Your task to perform on an android device: turn on wifi Image 0: 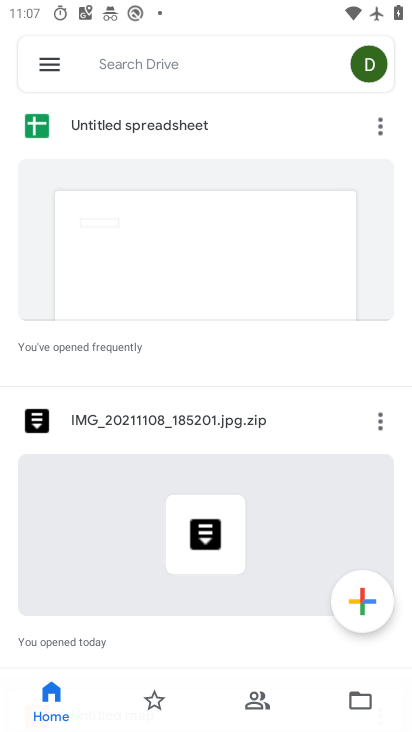
Step 0: press back button
Your task to perform on an android device: turn on wifi Image 1: 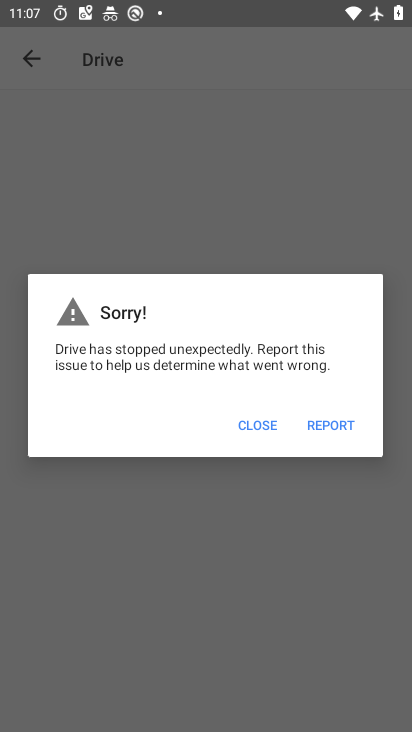
Step 1: click (247, 427)
Your task to perform on an android device: turn on wifi Image 2: 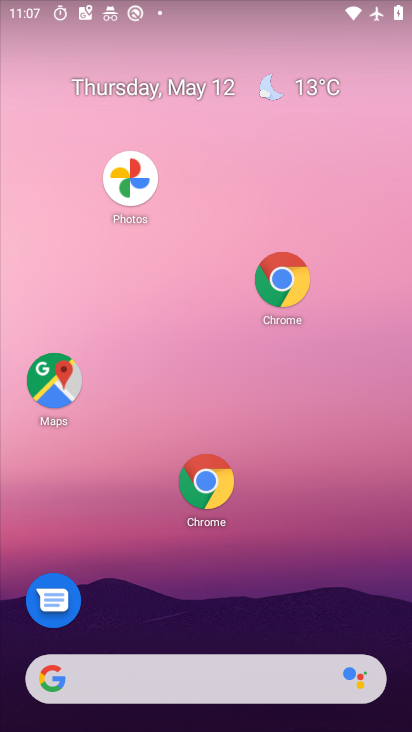
Step 2: drag from (361, 608) to (198, 89)
Your task to perform on an android device: turn on wifi Image 3: 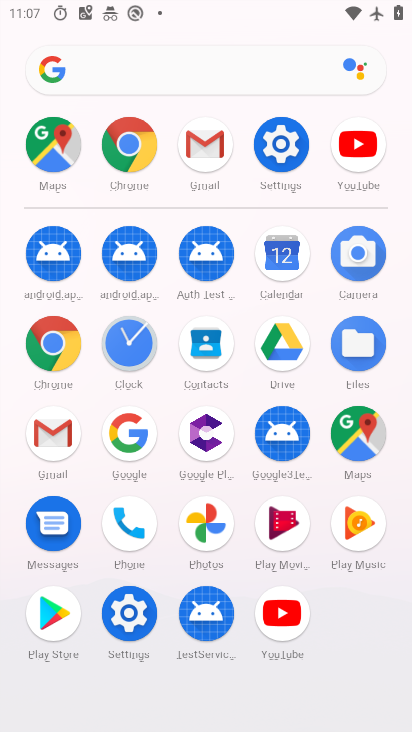
Step 3: click (286, 153)
Your task to perform on an android device: turn on wifi Image 4: 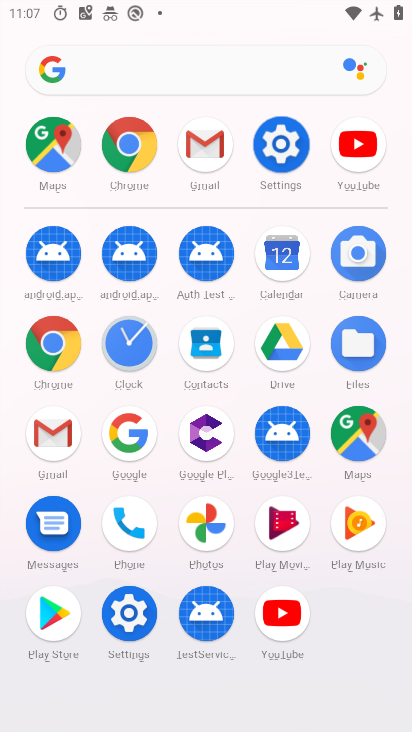
Step 4: click (287, 153)
Your task to perform on an android device: turn on wifi Image 5: 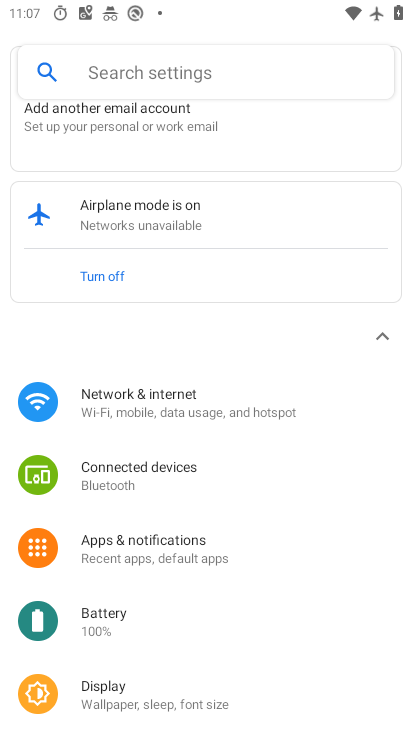
Step 5: drag from (202, 554) to (175, 218)
Your task to perform on an android device: turn on wifi Image 6: 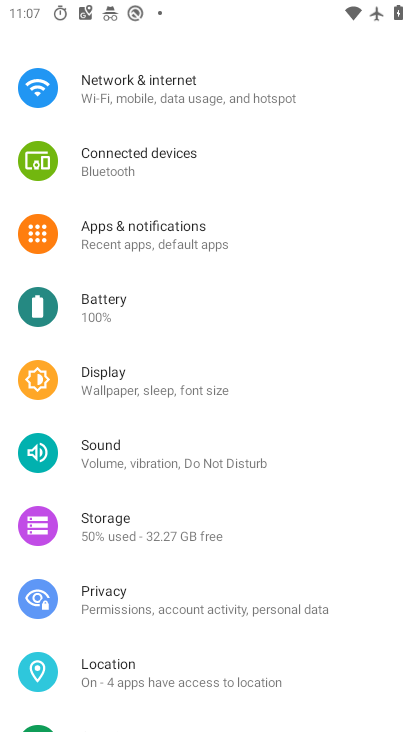
Step 6: drag from (203, 442) to (203, 79)
Your task to perform on an android device: turn on wifi Image 7: 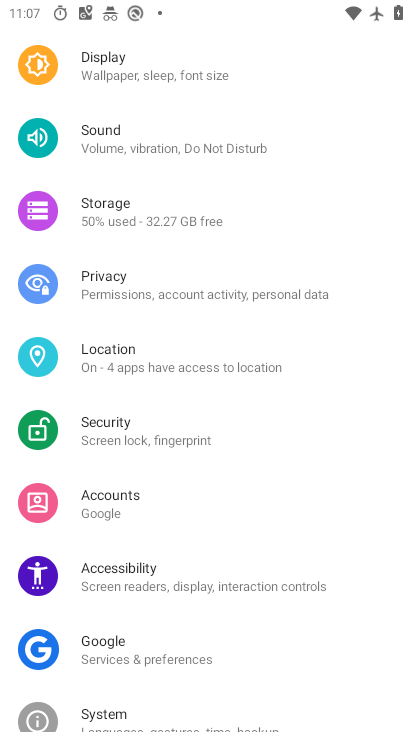
Step 7: drag from (227, 393) to (144, 114)
Your task to perform on an android device: turn on wifi Image 8: 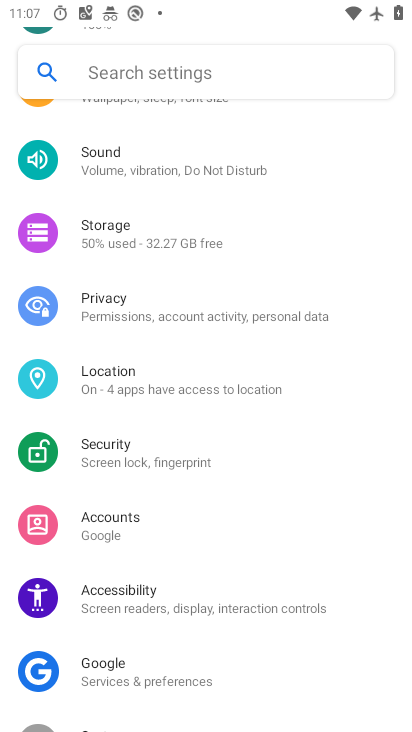
Step 8: drag from (220, 434) to (166, 7)
Your task to perform on an android device: turn on wifi Image 9: 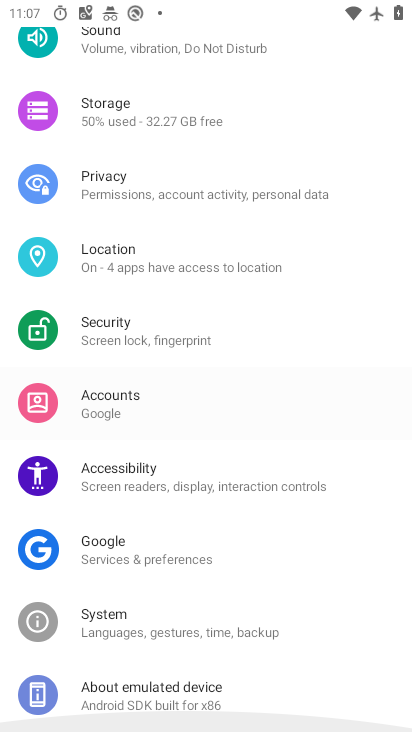
Step 9: drag from (173, 420) to (133, 42)
Your task to perform on an android device: turn on wifi Image 10: 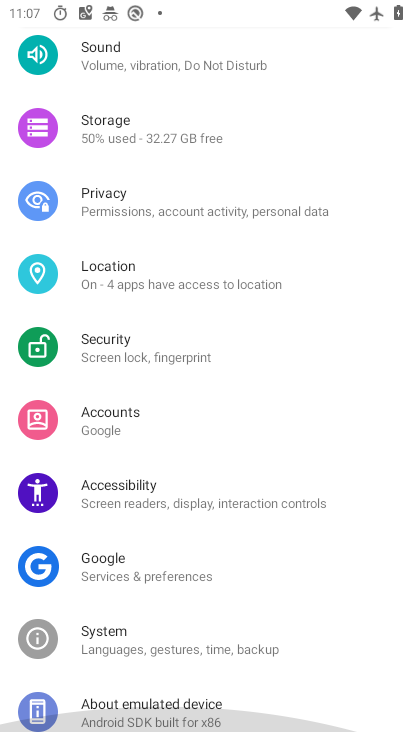
Step 10: drag from (268, 497) to (218, 58)
Your task to perform on an android device: turn on wifi Image 11: 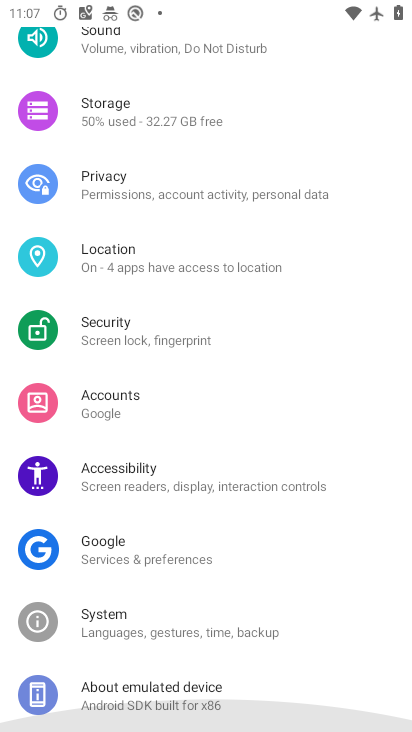
Step 11: drag from (214, 493) to (180, 11)
Your task to perform on an android device: turn on wifi Image 12: 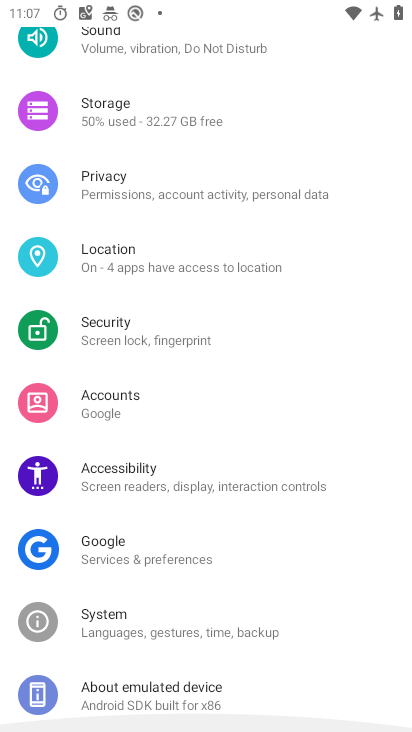
Step 12: drag from (240, 497) to (205, 83)
Your task to perform on an android device: turn on wifi Image 13: 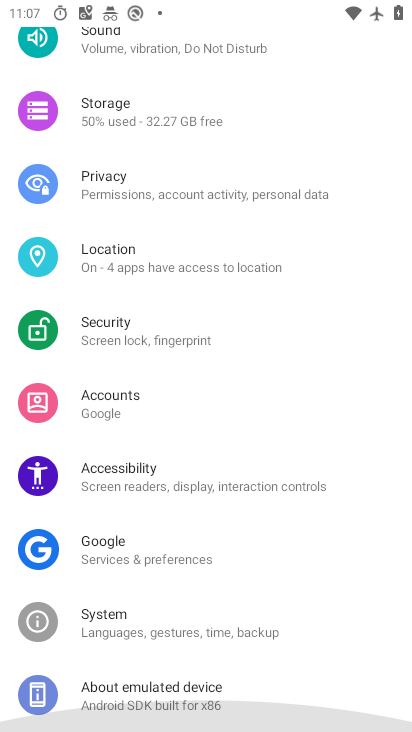
Step 13: drag from (220, 382) to (89, 0)
Your task to perform on an android device: turn on wifi Image 14: 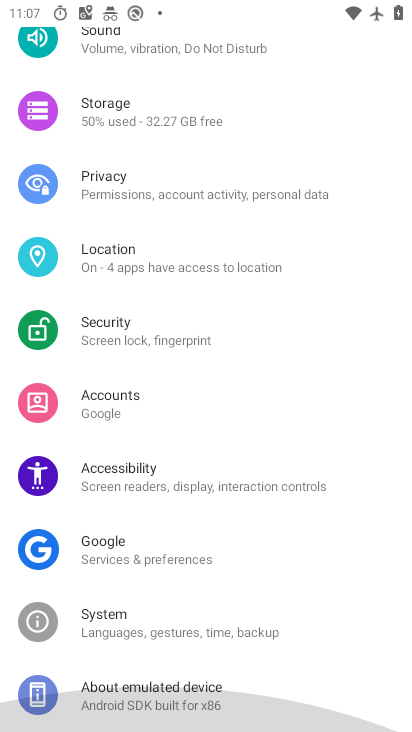
Step 14: drag from (204, 331) to (101, 12)
Your task to perform on an android device: turn on wifi Image 15: 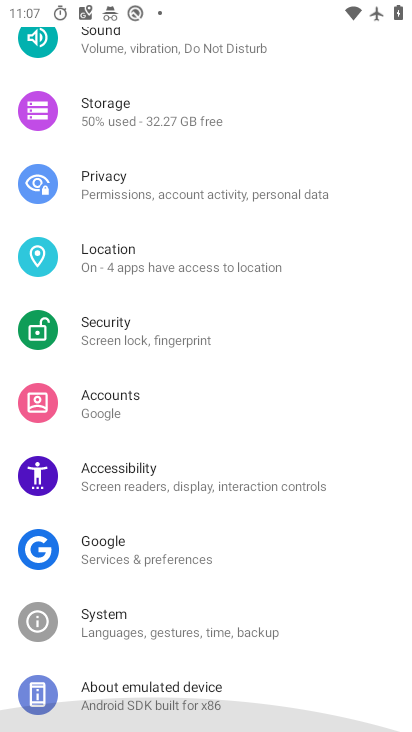
Step 15: drag from (177, 278) to (116, 0)
Your task to perform on an android device: turn on wifi Image 16: 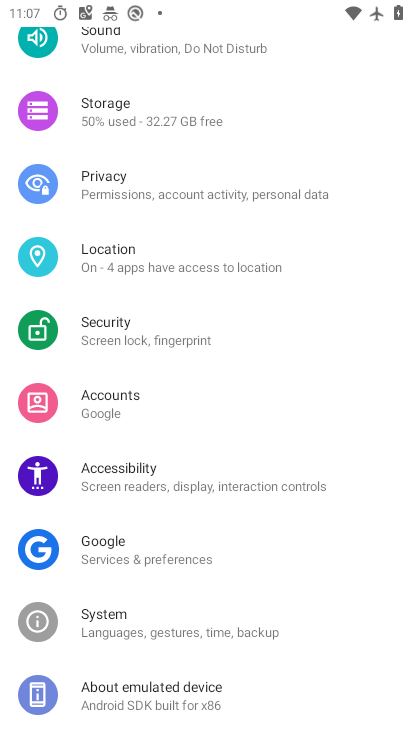
Step 16: drag from (217, 367) to (123, 3)
Your task to perform on an android device: turn on wifi Image 17: 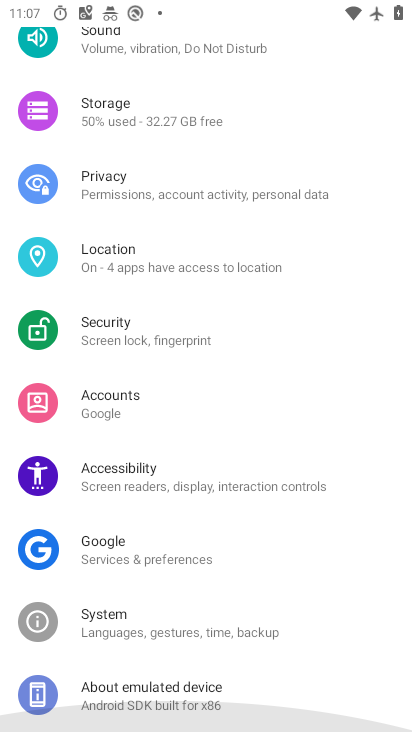
Step 17: drag from (165, 310) to (109, 24)
Your task to perform on an android device: turn on wifi Image 18: 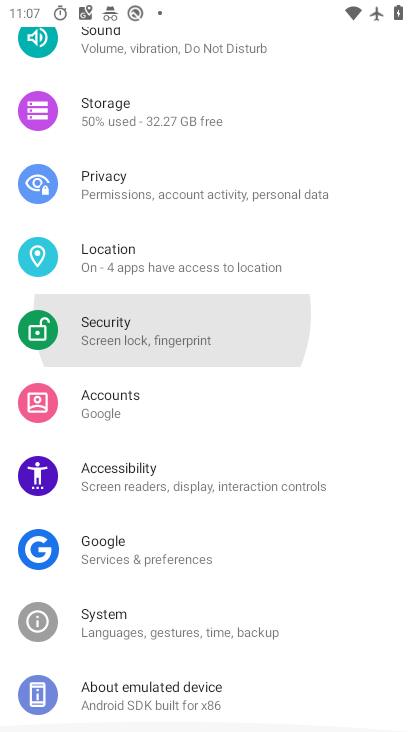
Step 18: drag from (151, 378) to (148, 111)
Your task to perform on an android device: turn on wifi Image 19: 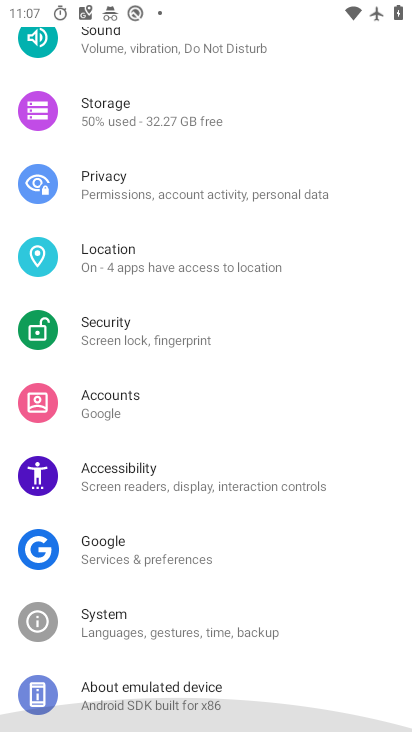
Step 19: drag from (155, 400) to (124, 97)
Your task to perform on an android device: turn on wifi Image 20: 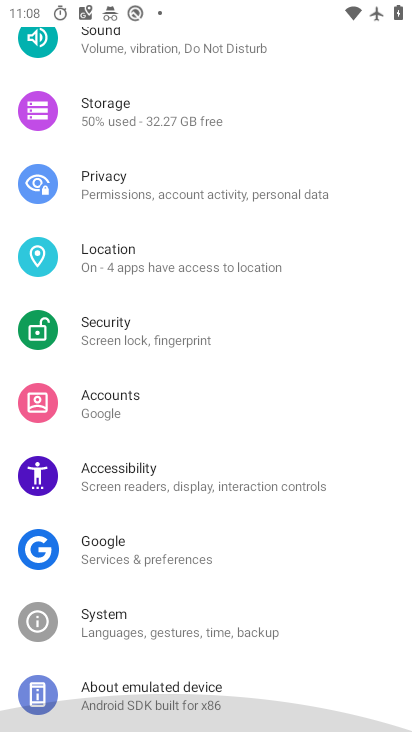
Step 20: drag from (159, 400) to (144, 87)
Your task to perform on an android device: turn on wifi Image 21: 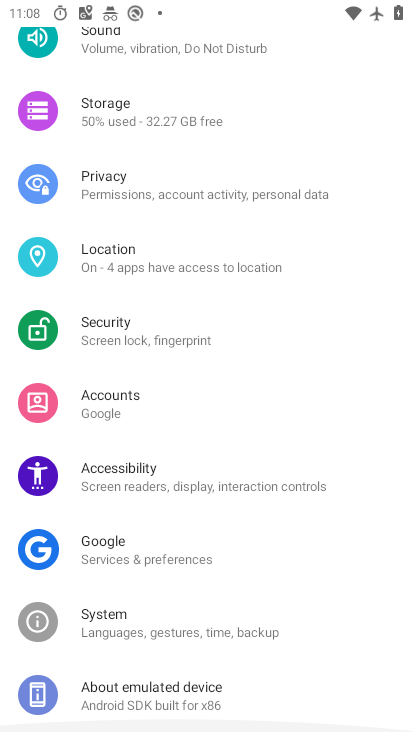
Step 21: drag from (150, 209) to (146, 434)
Your task to perform on an android device: turn on wifi Image 22: 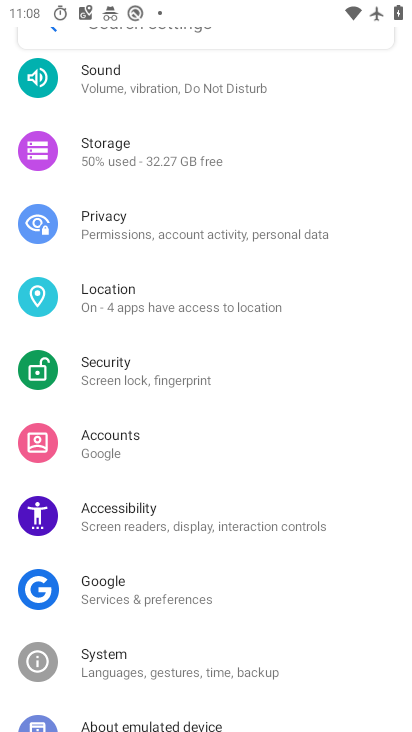
Step 22: drag from (151, 212) to (234, 494)
Your task to perform on an android device: turn on wifi Image 23: 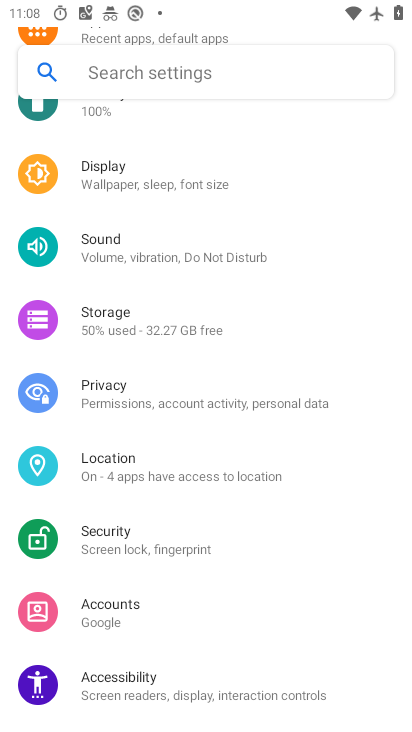
Step 23: drag from (190, 226) to (210, 562)
Your task to perform on an android device: turn on wifi Image 24: 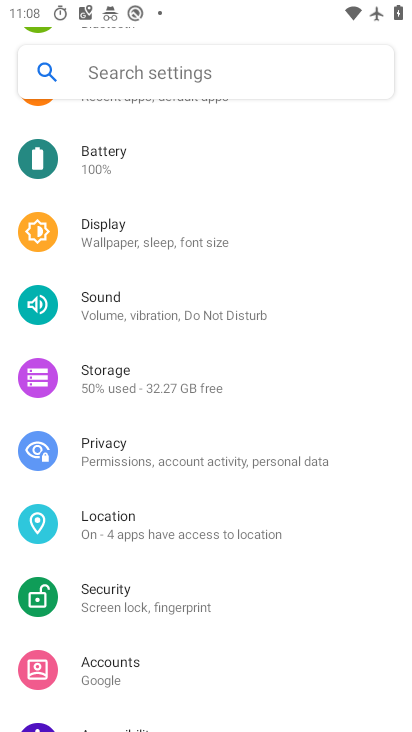
Step 24: drag from (118, 220) to (172, 550)
Your task to perform on an android device: turn on wifi Image 25: 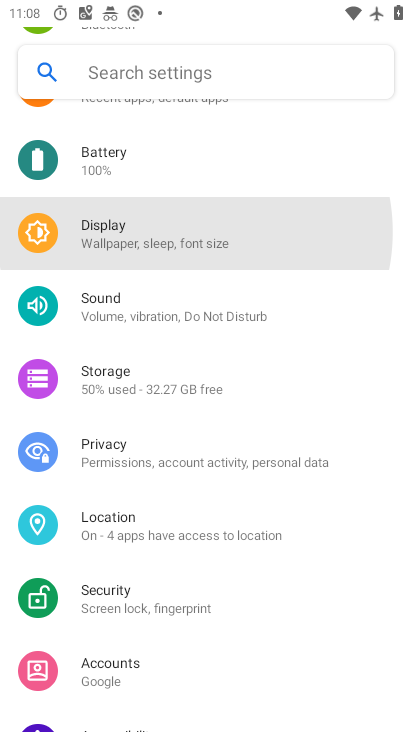
Step 25: drag from (124, 338) to (171, 552)
Your task to perform on an android device: turn on wifi Image 26: 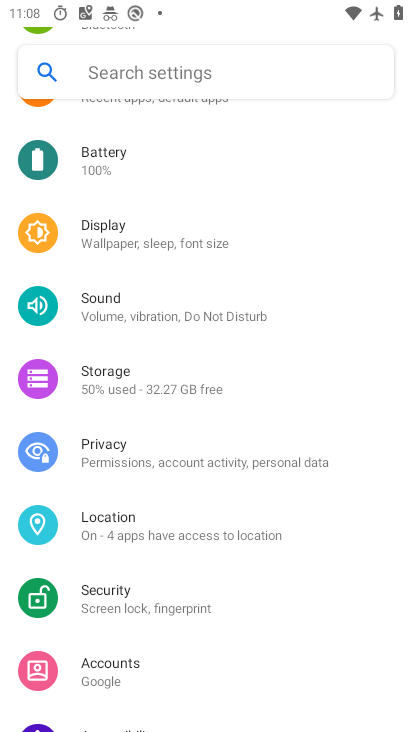
Step 26: drag from (166, 300) to (207, 578)
Your task to perform on an android device: turn on wifi Image 27: 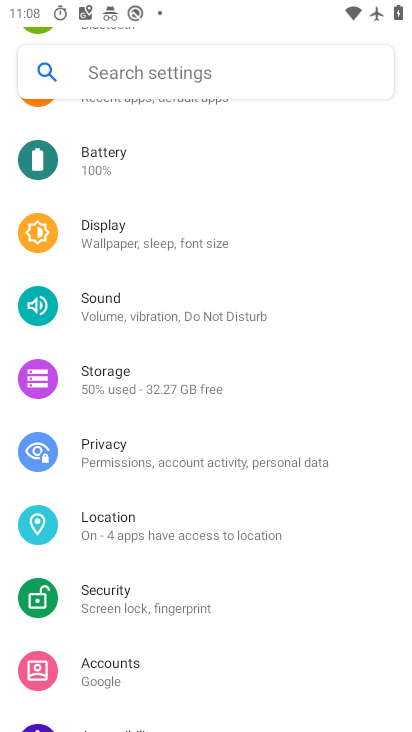
Step 27: drag from (146, 274) to (201, 686)
Your task to perform on an android device: turn on wifi Image 28: 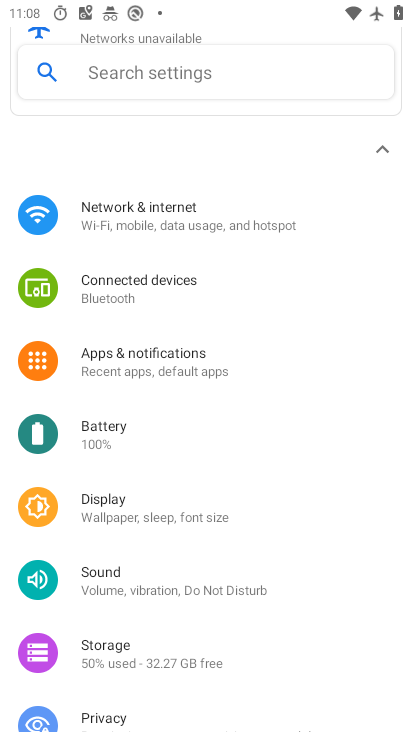
Step 28: drag from (137, 231) to (181, 595)
Your task to perform on an android device: turn on wifi Image 29: 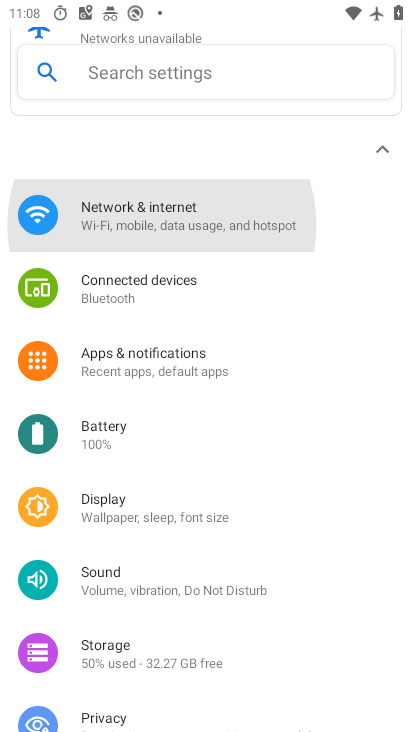
Step 29: drag from (144, 166) to (206, 562)
Your task to perform on an android device: turn on wifi Image 30: 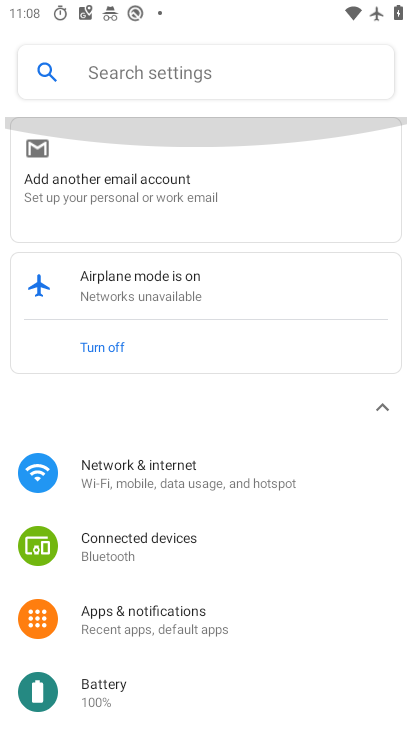
Step 30: drag from (132, 264) to (240, 675)
Your task to perform on an android device: turn on wifi Image 31: 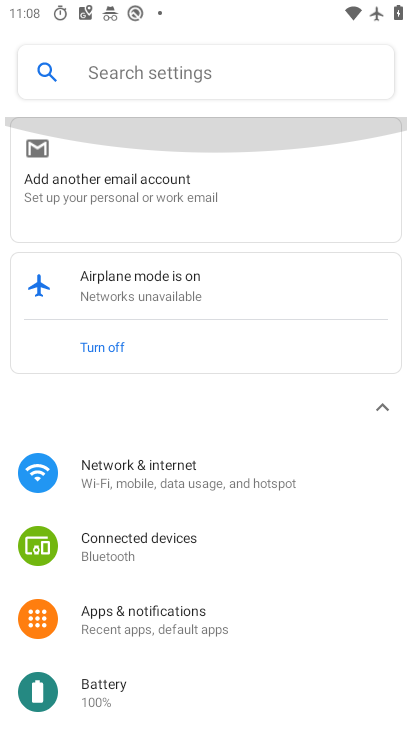
Step 31: drag from (190, 423) to (229, 695)
Your task to perform on an android device: turn on wifi Image 32: 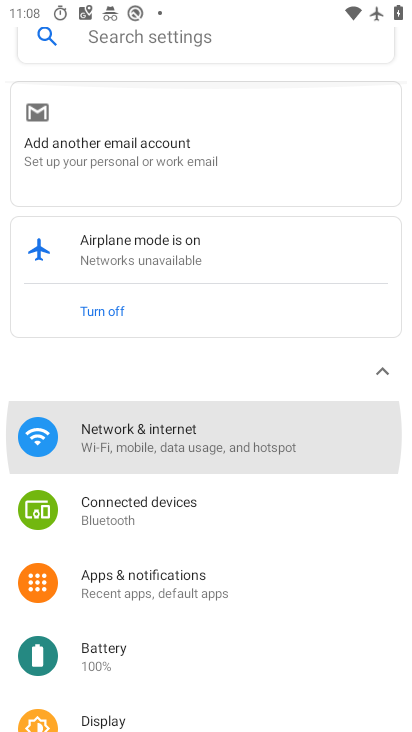
Step 32: drag from (112, 526) to (112, 565)
Your task to perform on an android device: turn on wifi Image 33: 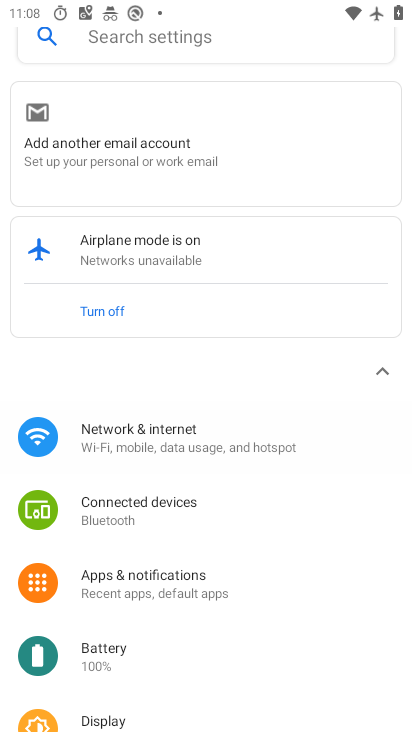
Step 33: drag from (120, 550) to (96, 74)
Your task to perform on an android device: turn on wifi Image 34: 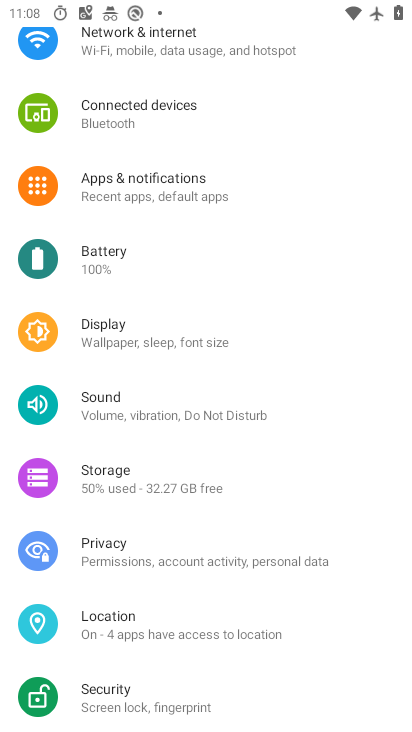
Step 34: drag from (214, 433) to (190, 139)
Your task to perform on an android device: turn on wifi Image 35: 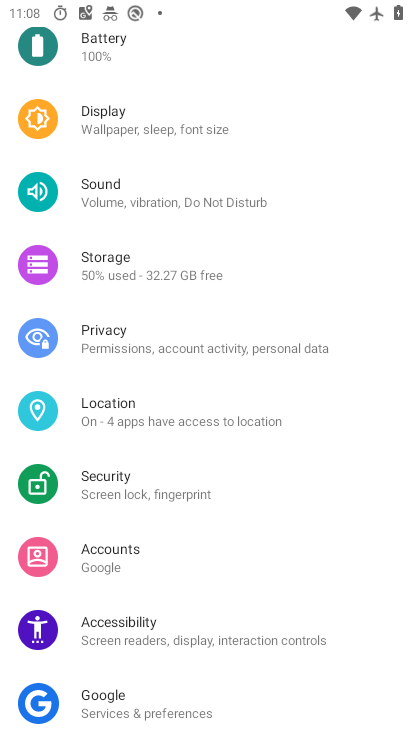
Step 35: drag from (189, 367) to (117, 94)
Your task to perform on an android device: turn on wifi Image 36: 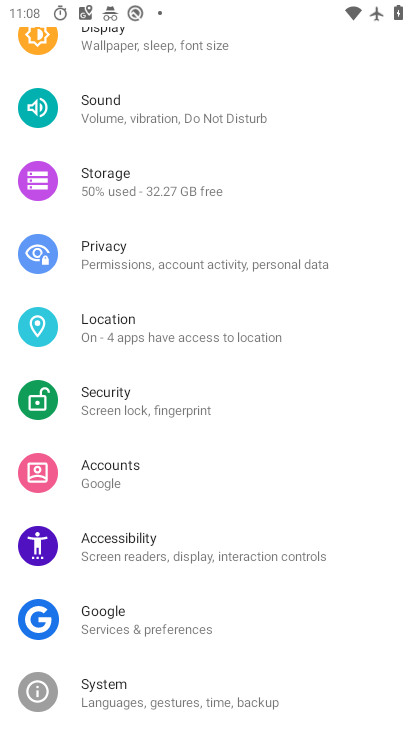
Step 36: drag from (118, 346) to (111, 104)
Your task to perform on an android device: turn on wifi Image 37: 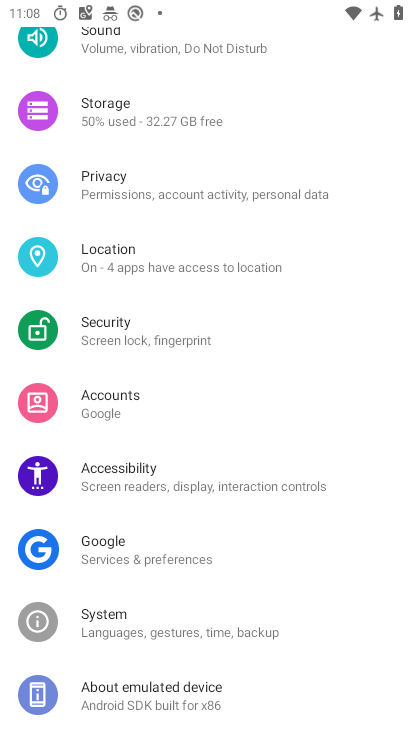
Step 37: drag from (96, 255) to (204, 553)
Your task to perform on an android device: turn on wifi Image 38: 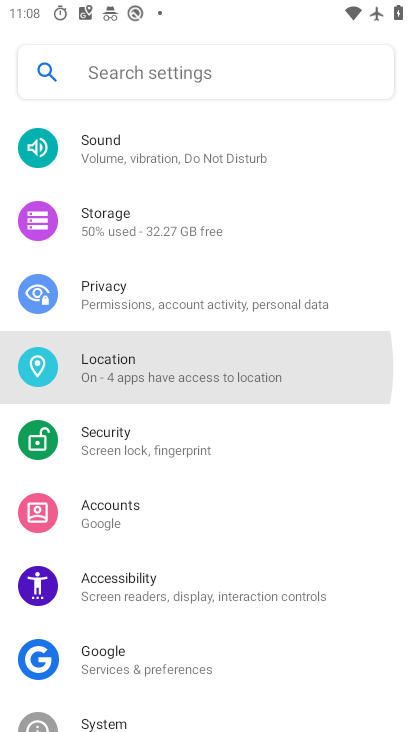
Step 38: drag from (136, 176) to (202, 499)
Your task to perform on an android device: turn on wifi Image 39: 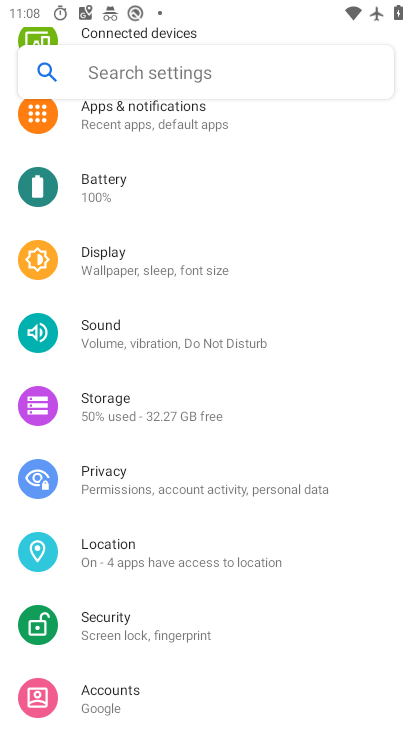
Step 39: drag from (186, 263) to (279, 649)
Your task to perform on an android device: turn on wifi Image 40: 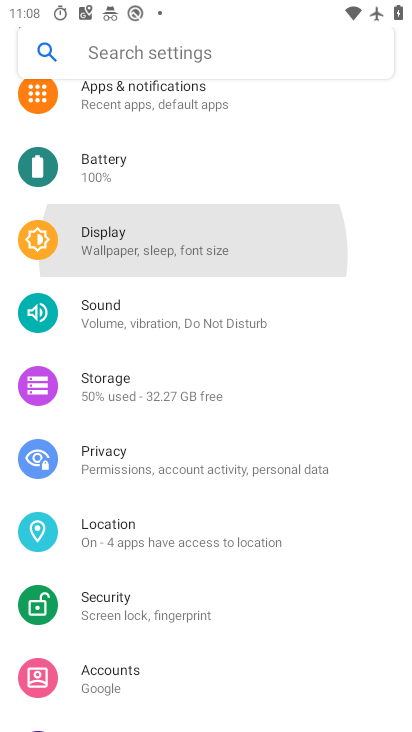
Step 40: drag from (249, 166) to (266, 576)
Your task to perform on an android device: turn on wifi Image 41: 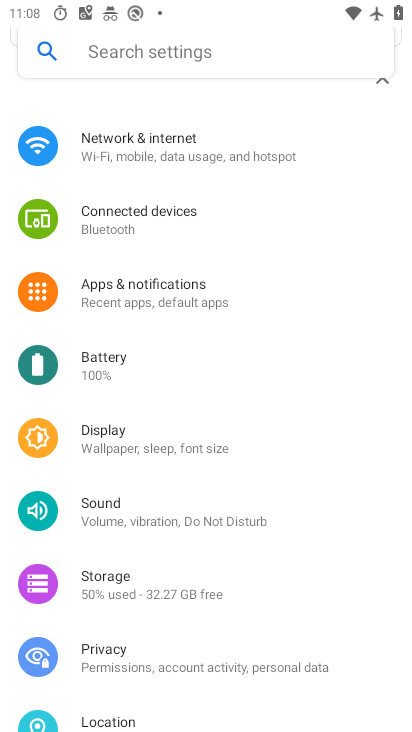
Step 41: drag from (78, 148) to (176, 662)
Your task to perform on an android device: turn on wifi Image 42: 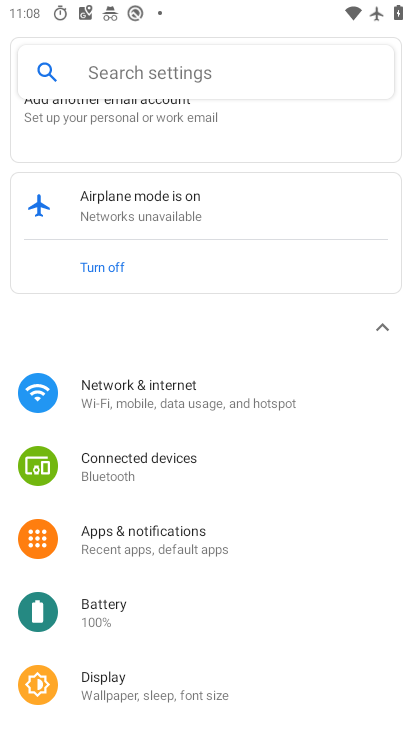
Step 42: drag from (205, 178) to (284, 641)
Your task to perform on an android device: turn on wifi Image 43: 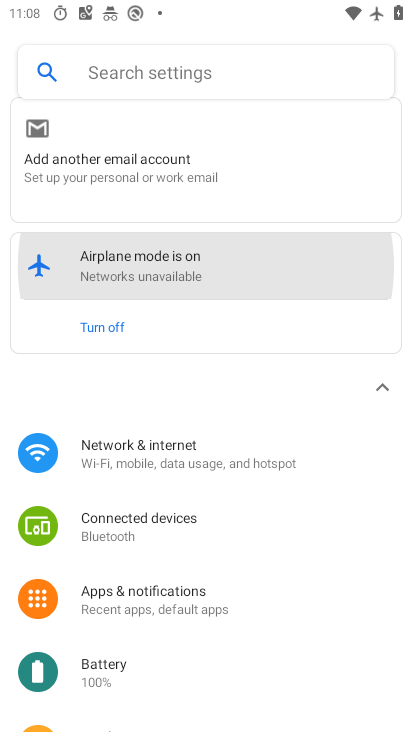
Step 43: drag from (256, 278) to (277, 586)
Your task to perform on an android device: turn on wifi Image 44: 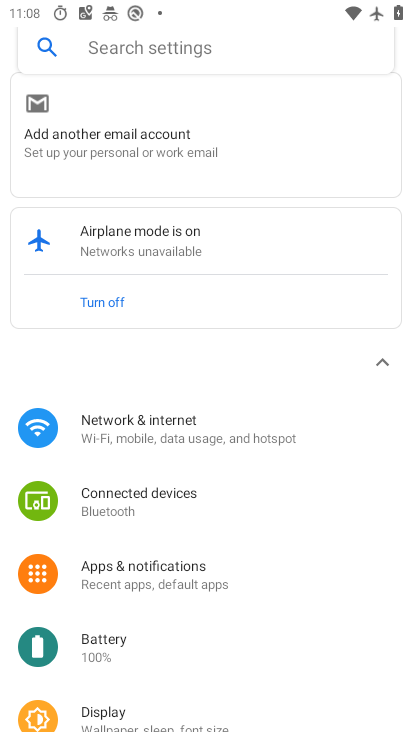
Step 44: drag from (171, 259) to (194, 697)
Your task to perform on an android device: turn on wifi Image 45: 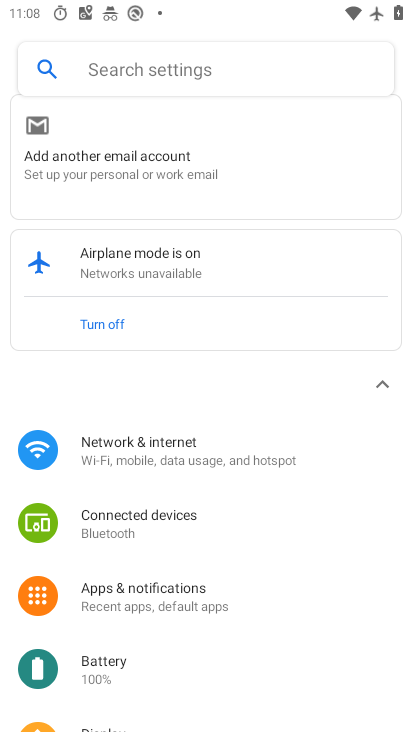
Step 45: click (152, 457)
Your task to perform on an android device: turn on wifi Image 46: 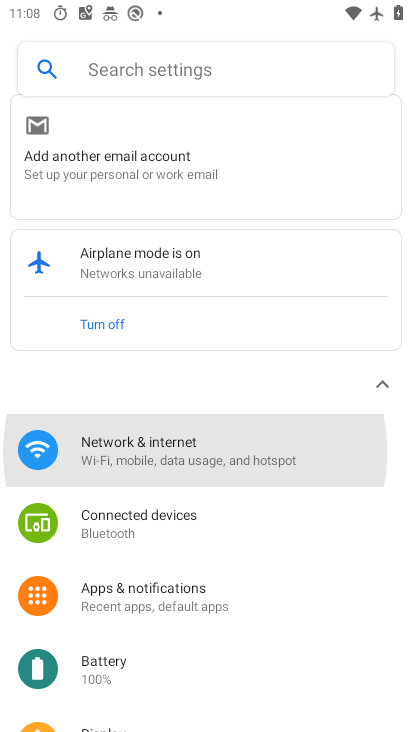
Step 46: click (152, 458)
Your task to perform on an android device: turn on wifi Image 47: 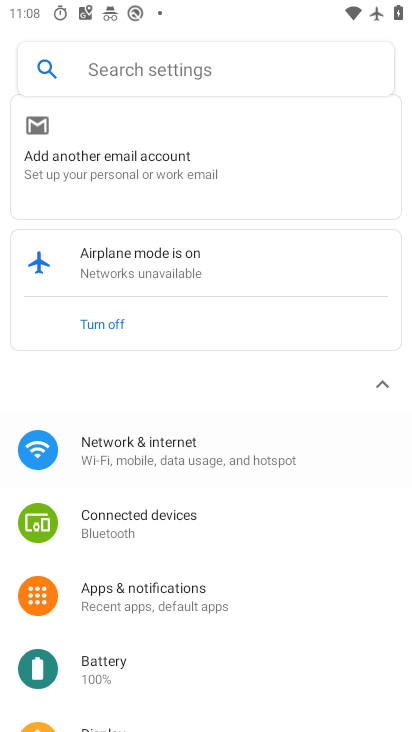
Step 47: click (152, 458)
Your task to perform on an android device: turn on wifi Image 48: 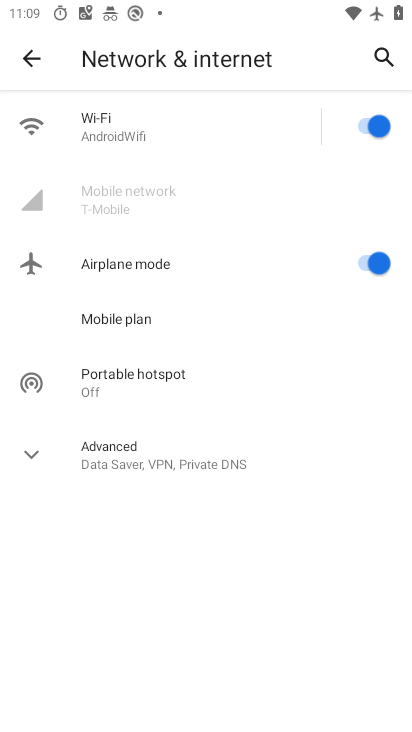
Step 48: task complete